Your task to perform on an android device: Open Yahoo.com Image 0: 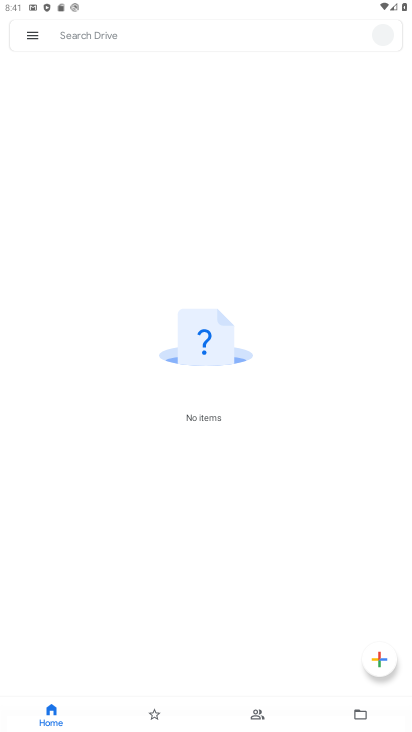
Step 0: press home button
Your task to perform on an android device: Open Yahoo.com Image 1: 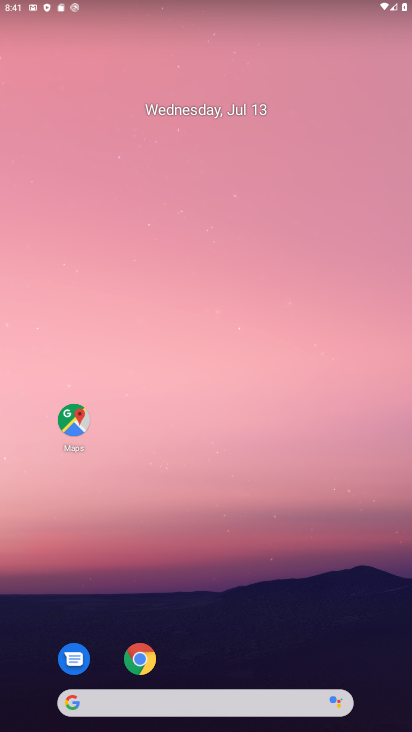
Step 1: drag from (213, 667) to (305, 44)
Your task to perform on an android device: Open Yahoo.com Image 2: 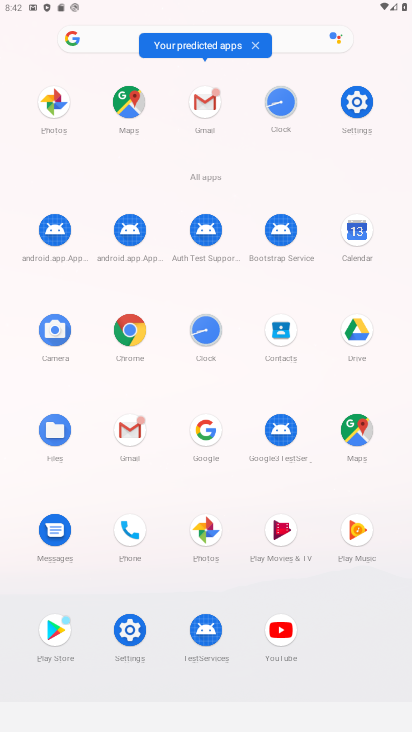
Step 2: click (127, 317)
Your task to perform on an android device: Open Yahoo.com Image 3: 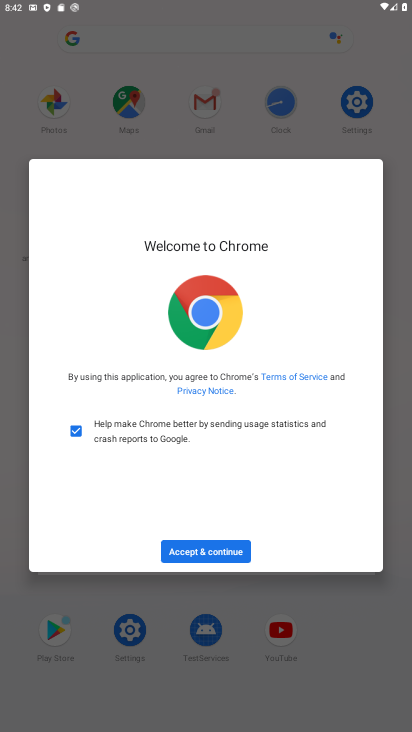
Step 3: click (189, 560)
Your task to perform on an android device: Open Yahoo.com Image 4: 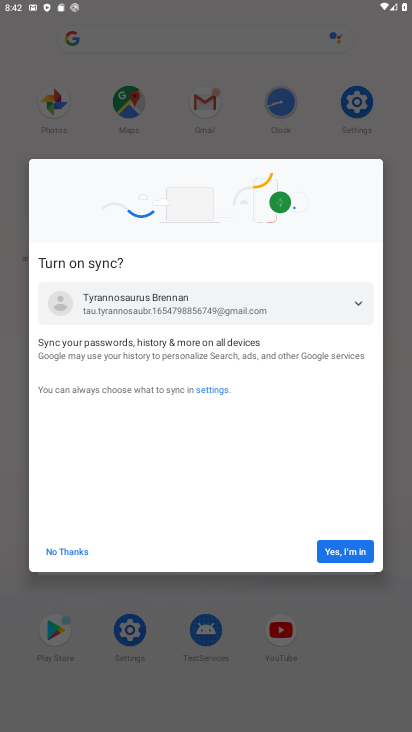
Step 4: click (327, 553)
Your task to perform on an android device: Open Yahoo.com Image 5: 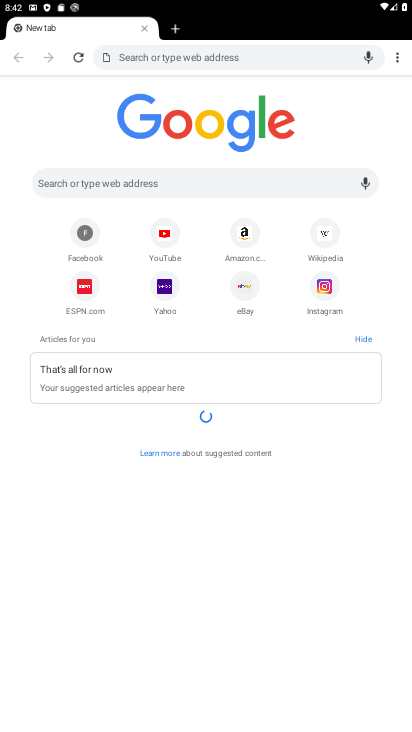
Step 5: click (169, 290)
Your task to perform on an android device: Open Yahoo.com Image 6: 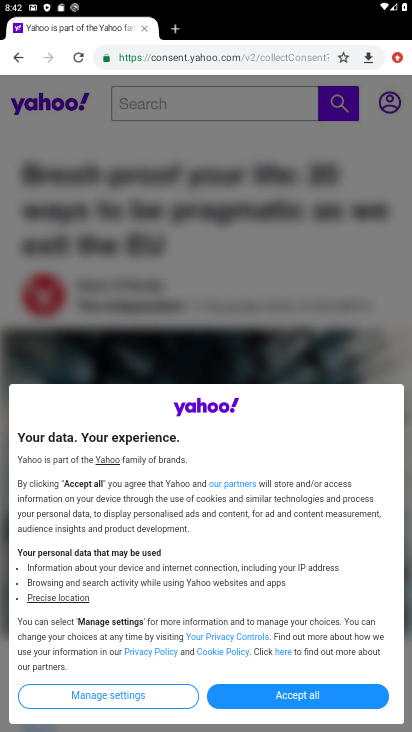
Step 6: click (276, 704)
Your task to perform on an android device: Open Yahoo.com Image 7: 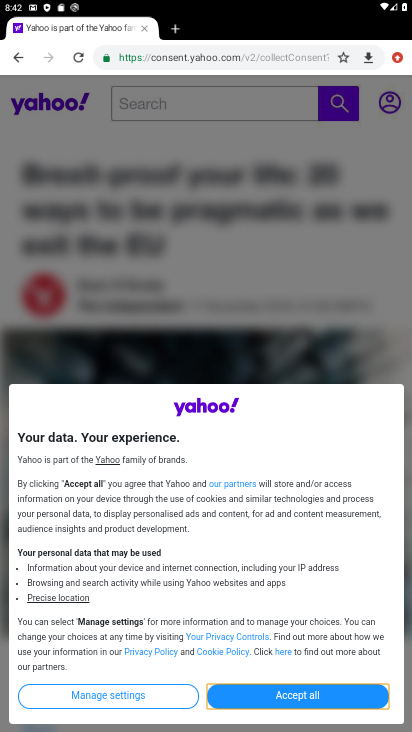
Step 7: click (315, 703)
Your task to perform on an android device: Open Yahoo.com Image 8: 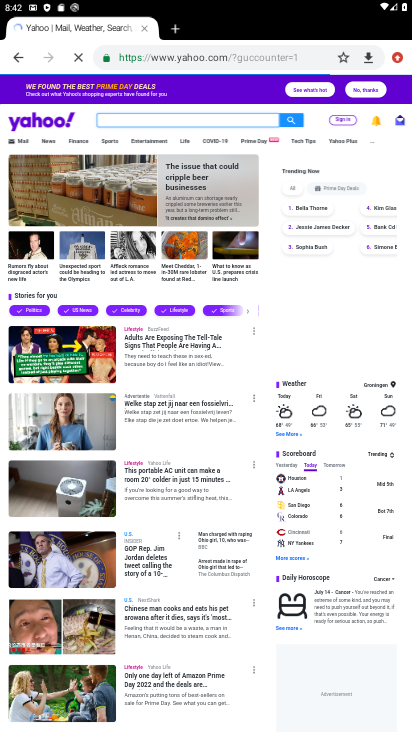
Step 8: task complete